Your task to perform on an android device: Open Google Chrome Image 0: 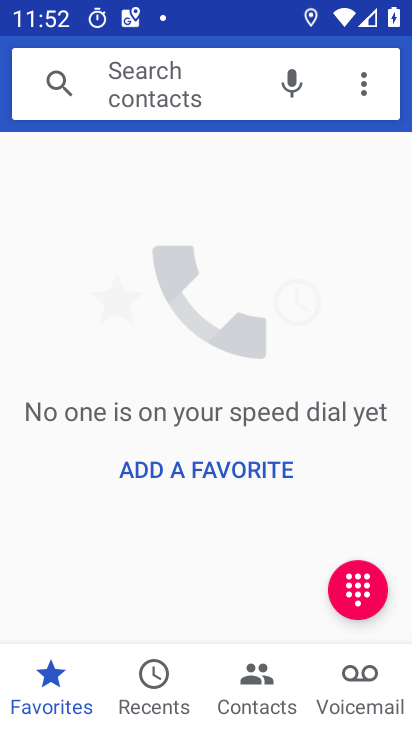
Step 0: press home button
Your task to perform on an android device: Open Google Chrome Image 1: 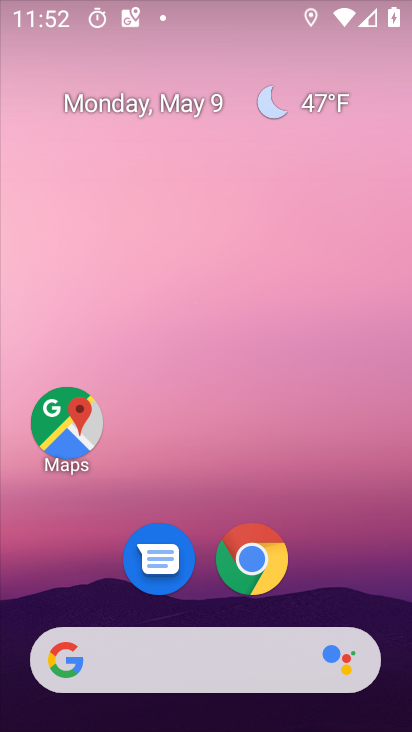
Step 1: click (267, 563)
Your task to perform on an android device: Open Google Chrome Image 2: 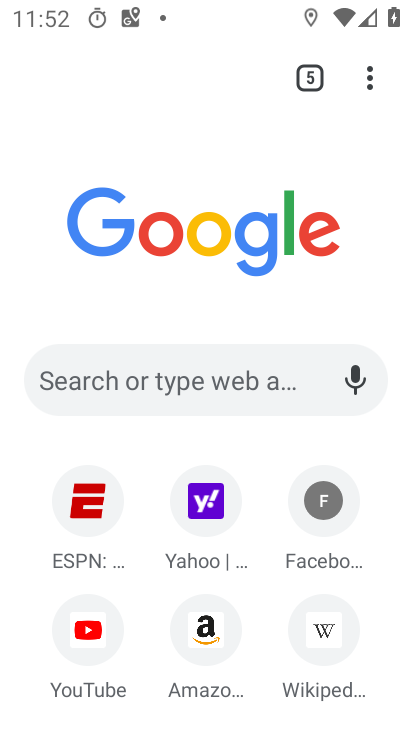
Step 2: task complete